Your task to perform on an android device: toggle data saver in the chrome app Image 0: 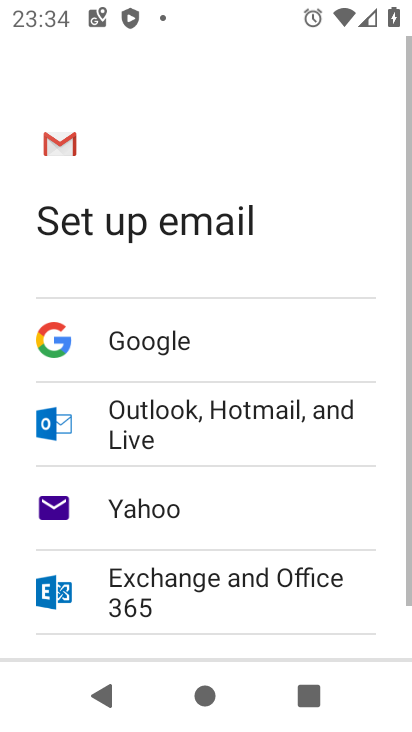
Step 0: press home button
Your task to perform on an android device: toggle data saver in the chrome app Image 1: 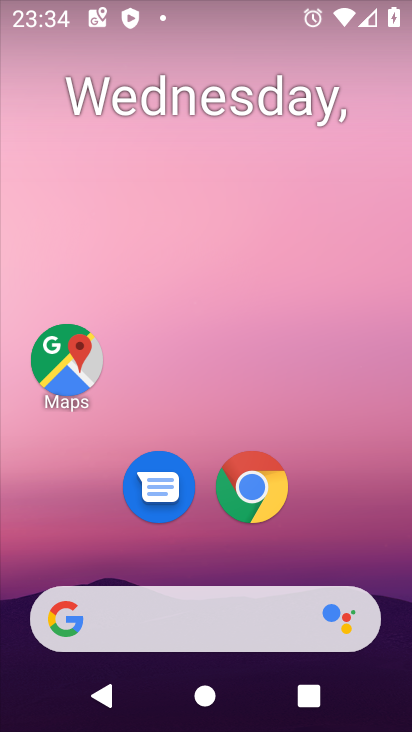
Step 1: click (258, 494)
Your task to perform on an android device: toggle data saver in the chrome app Image 2: 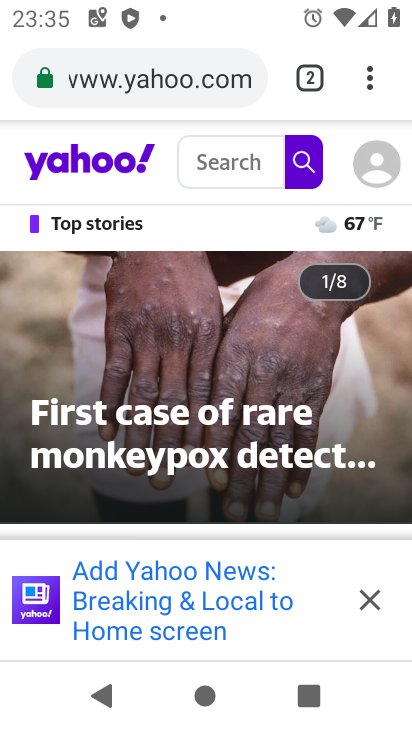
Step 2: click (372, 79)
Your task to perform on an android device: toggle data saver in the chrome app Image 3: 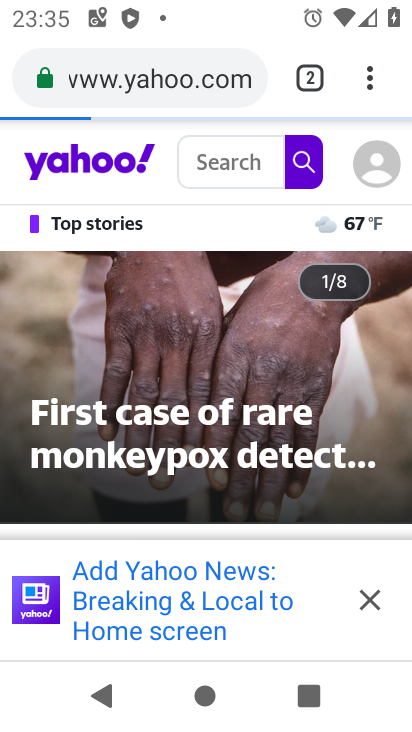
Step 3: drag from (372, 79) to (102, 561)
Your task to perform on an android device: toggle data saver in the chrome app Image 4: 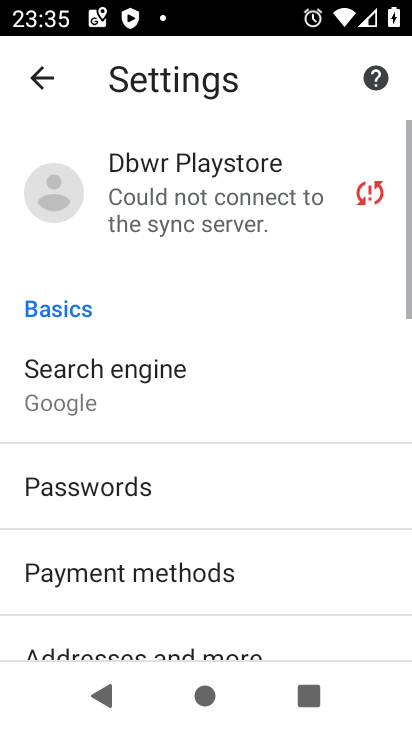
Step 4: drag from (190, 596) to (219, 89)
Your task to perform on an android device: toggle data saver in the chrome app Image 5: 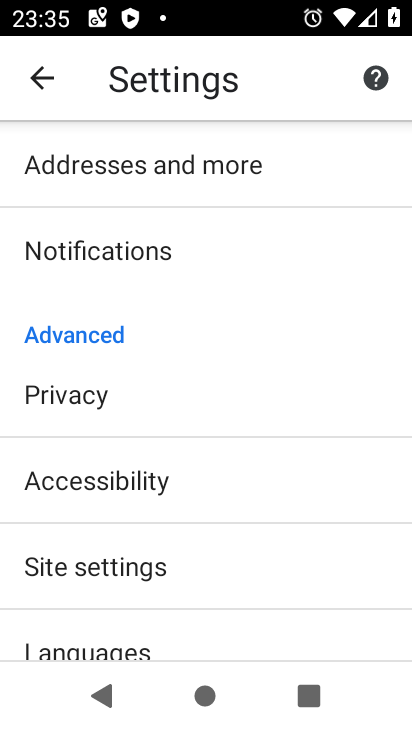
Step 5: drag from (193, 557) to (208, 244)
Your task to perform on an android device: toggle data saver in the chrome app Image 6: 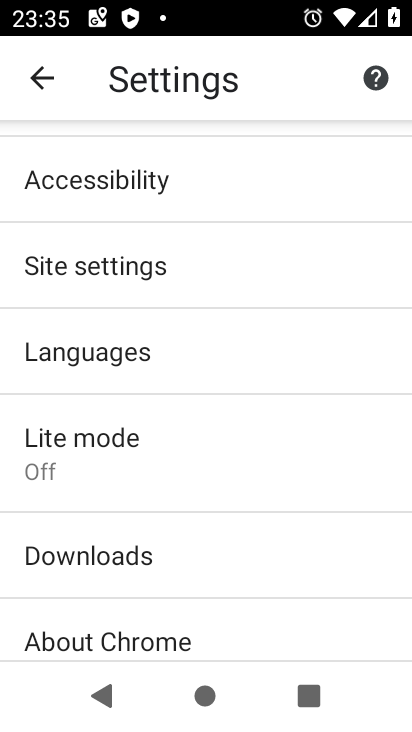
Step 6: click (101, 444)
Your task to perform on an android device: toggle data saver in the chrome app Image 7: 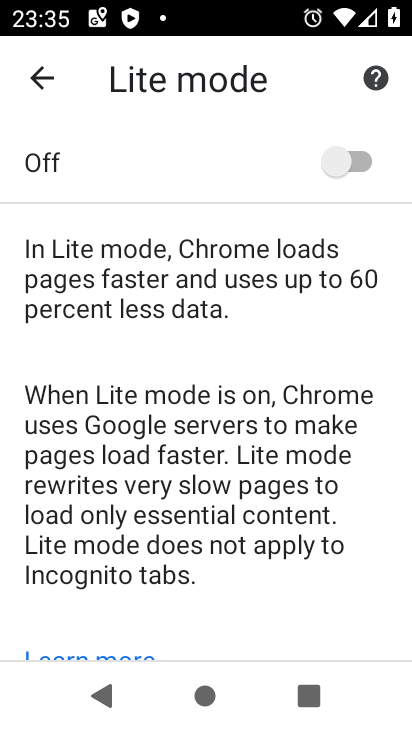
Step 7: click (336, 155)
Your task to perform on an android device: toggle data saver in the chrome app Image 8: 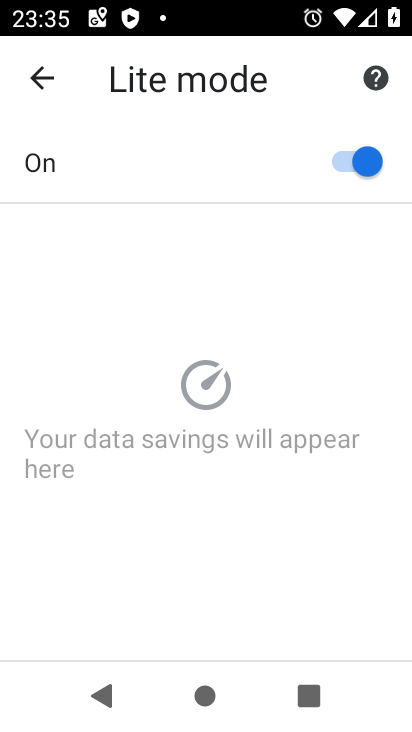
Step 8: task complete